Your task to perform on an android device: choose inbox layout in the gmail app Image 0: 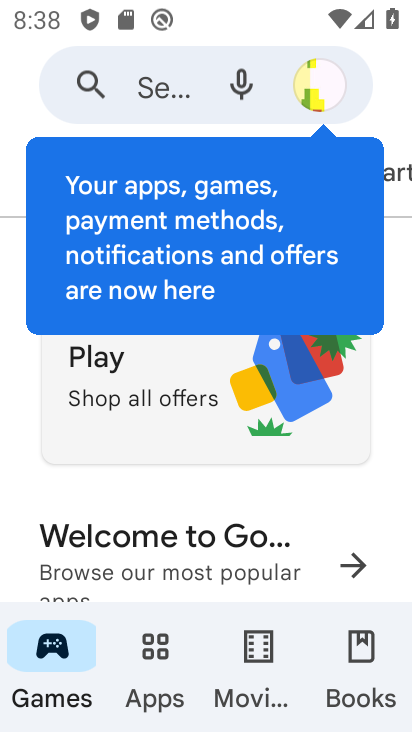
Step 0: press home button
Your task to perform on an android device: choose inbox layout in the gmail app Image 1: 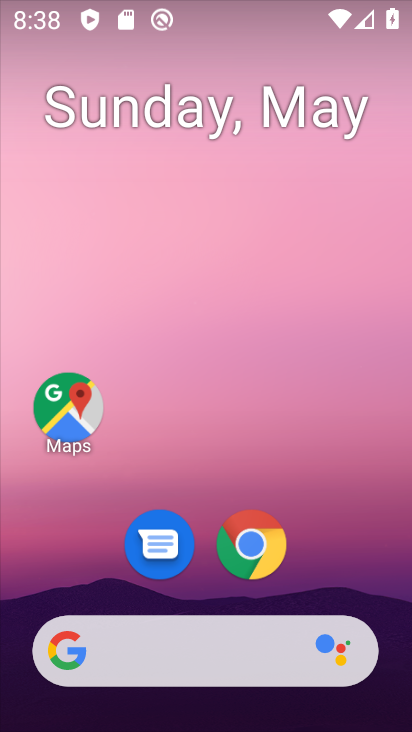
Step 1: drag from (358, 426) to (372, 102)
Your task to perform on an android device: choose inbox layout in the gmail app Image 2: 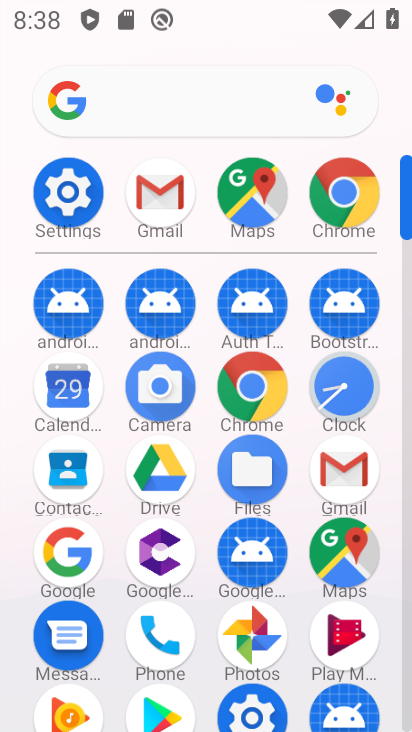
Step 2: click (169, 183)
Your task to perform on an android device: choose inbox layout in the gmail app Image 3: 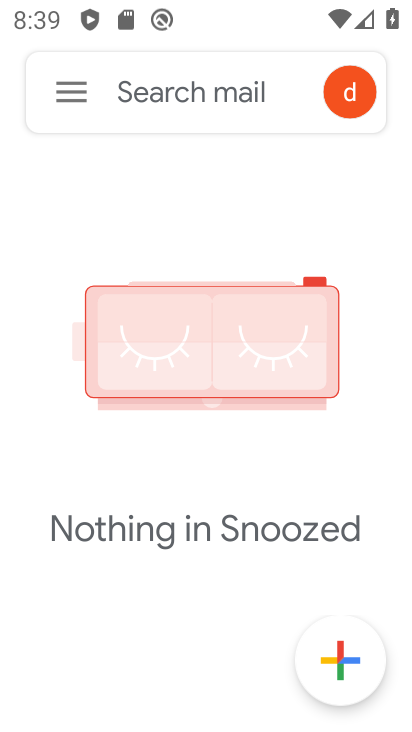
Step 3: task complete